Your task to perform on an android device: change timer sound Image 0: 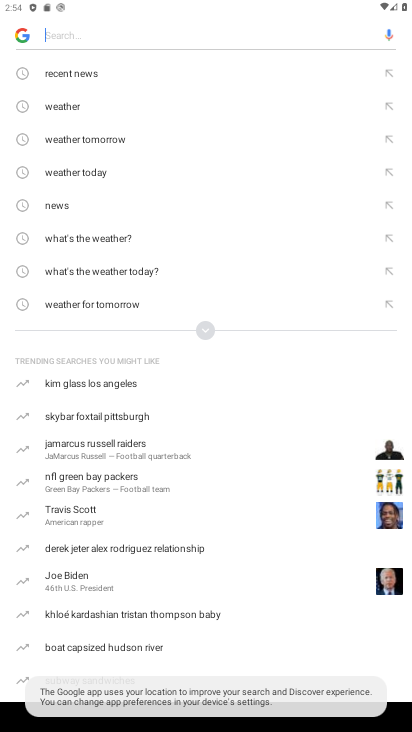
Step 0: press home button
Your task to perform on an android device: change timer sound Image 1: 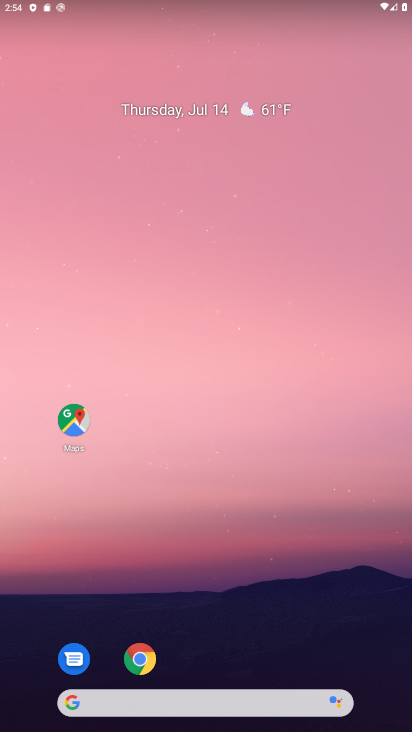
Step 1: drag from (199, 707) to (238, 130)
Your task to perform on an android device: change timer sound Image 2: 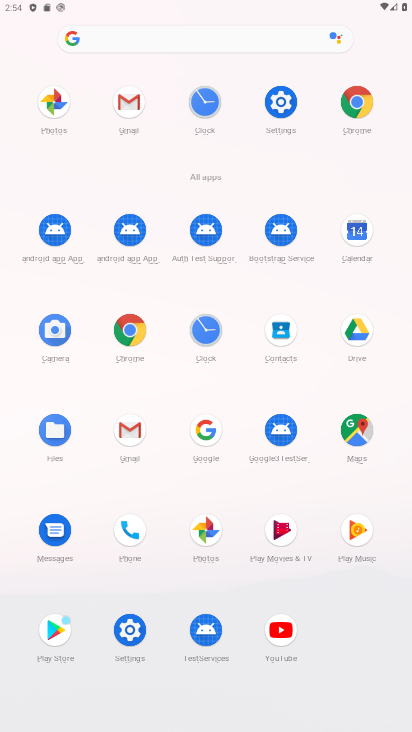
Step 2: click (207, 330)
Your task to perform on an android device: change timer sound Image 3: 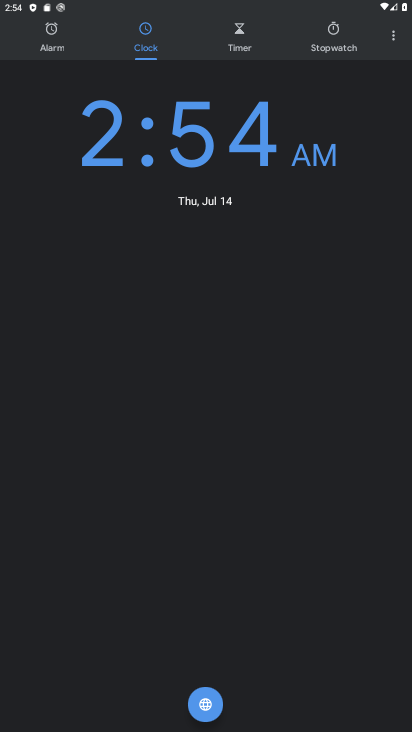
Step 3: click (397, 37)
Your task to perform on an android device: change timer sound Image 4: 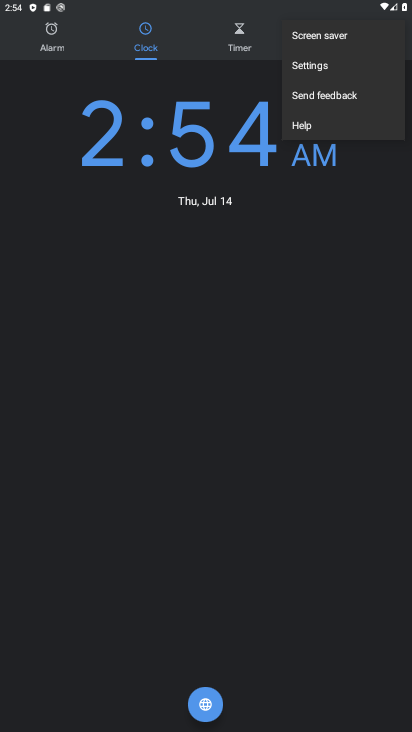
Step 4: click (330, 64)
Your task to perform on an android device: change timer sound Image 5: 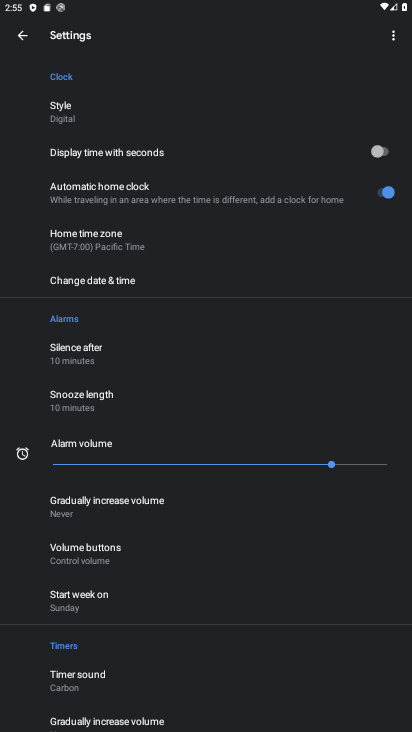
Step 5: click (85, 676)
Your task to perform on an android device: change timer sound Image 6: 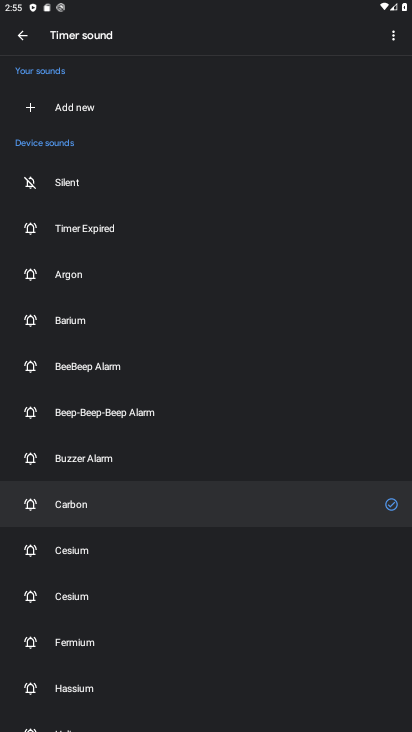
Step 6: click (104, 234)
Your task to perform on an android device: change timer sound Image 7: 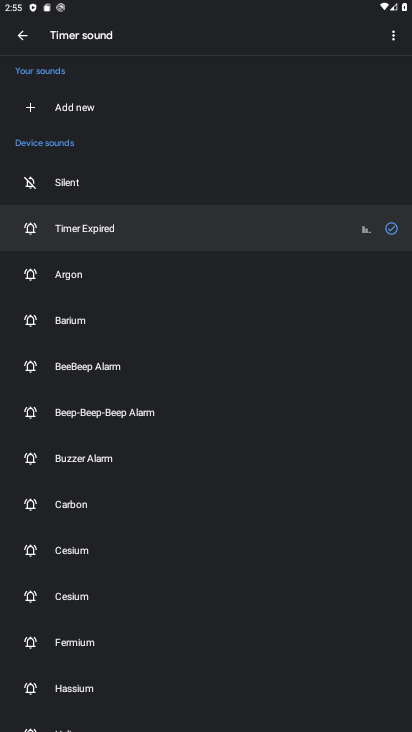
Step 7: task complete